Your task to perform on an android device: turn on the 12-hour format for clock Image 0: 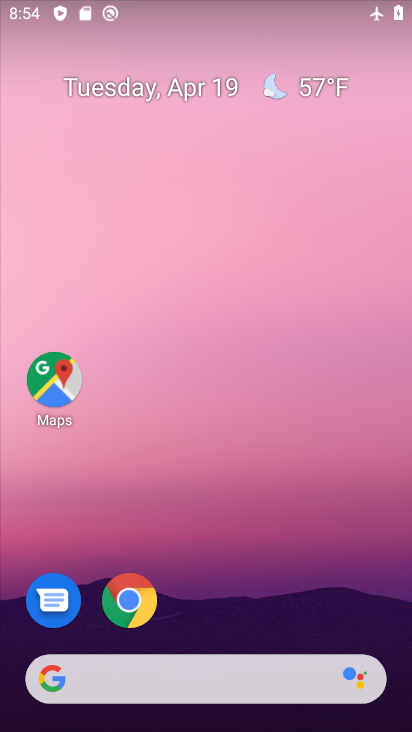
Step 0: drag from (357, 607) to (351, 119)
Your task to perform on an android device: turn on the 12-hour format for clock Image 1: 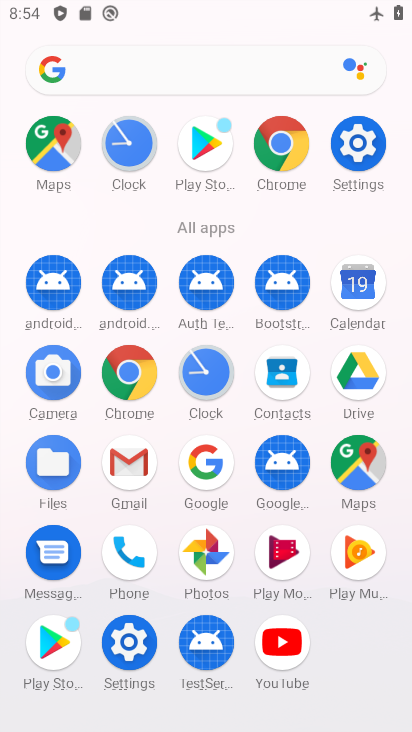
Step 1: click (202, 369)
Your task to perform on an android device: turn on the 12-hour format for clock Image 2: 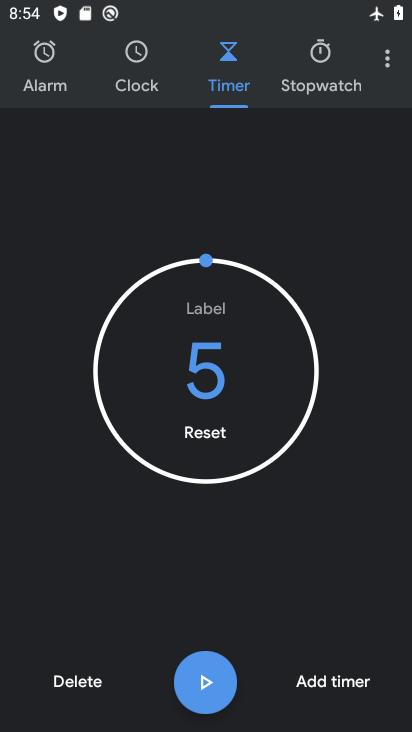
Step 2: click (388, 65)
Your task to perform on an android device: turn on the 12-hour format for clock Image 3: 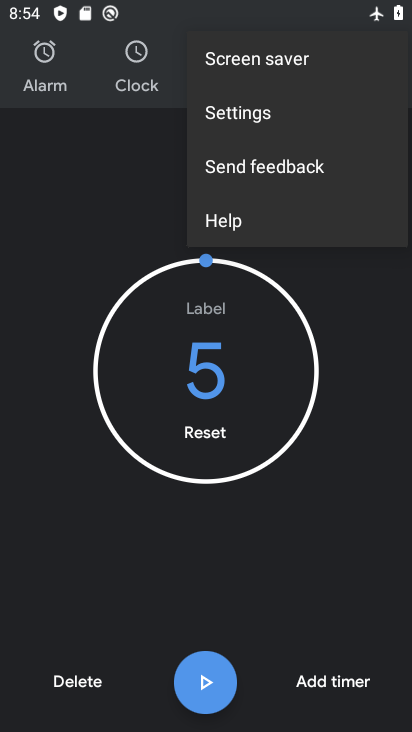
Step 3: click (257, 114)
Your task to perform on an android device: turn on the 12-hour format for clock Image 4: 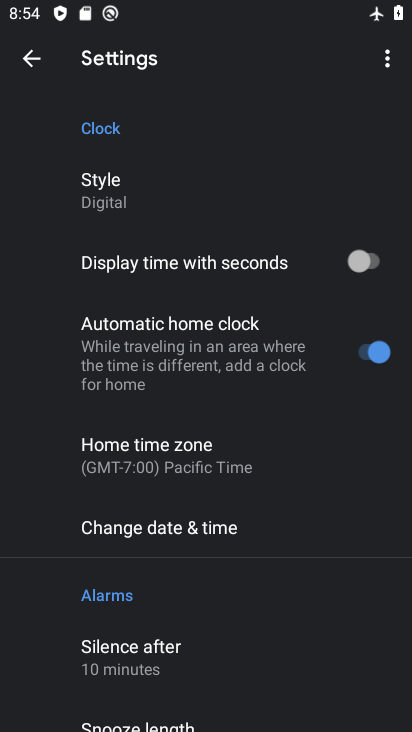
Step 4: drag from (331, 610) to (336, 360)
Your task to perform on an android device: turn on the 12-hour format for clock Image 5: 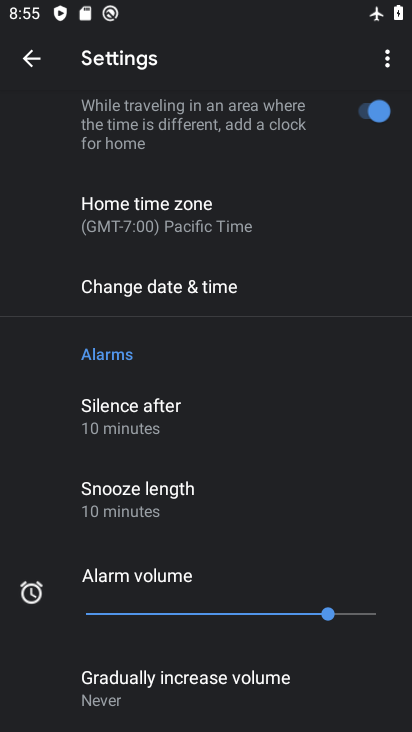
Step 5: click (202, 296)
Your task to perform on an android device: turn on the 12-hour format for clock Image 6: 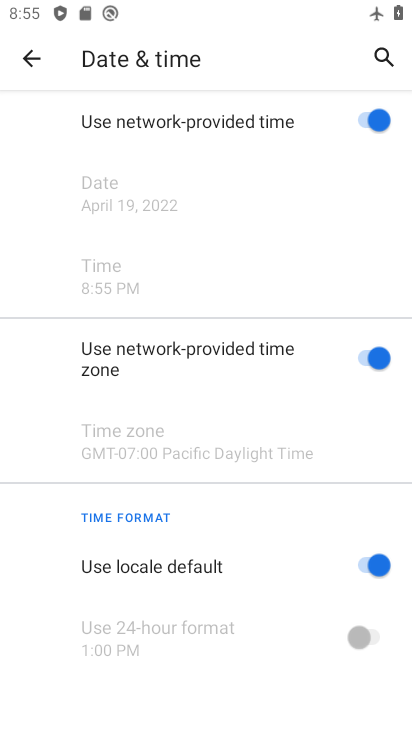
Step 6: task complete